Your task to perform on an android device: Set the phone to "Do not disturb". Image 0: 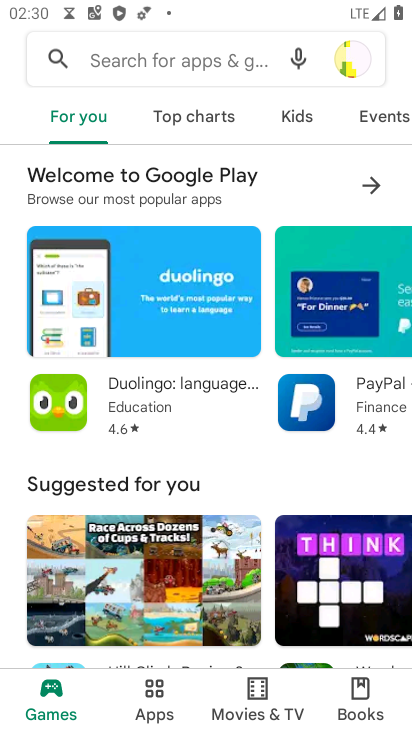
Step 0: press home button
Your task to perform on an android device: Set the phone to "Do not disturb". Image 1: 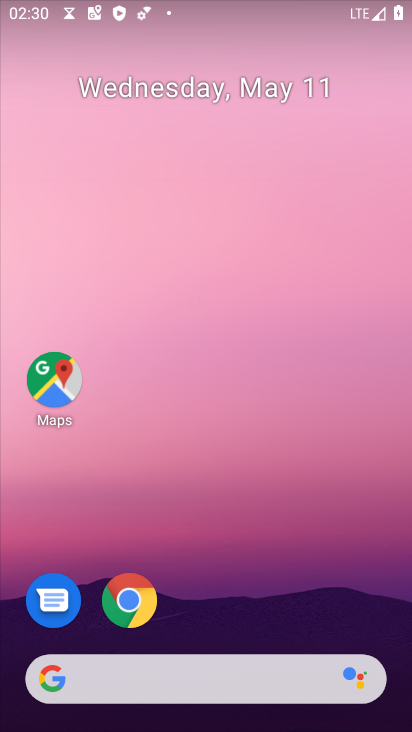
Step 1: drag from (225, 5) to (164, 569)
Your task to perform on an android device: Set the phone to "Do not disturb". Image 2: 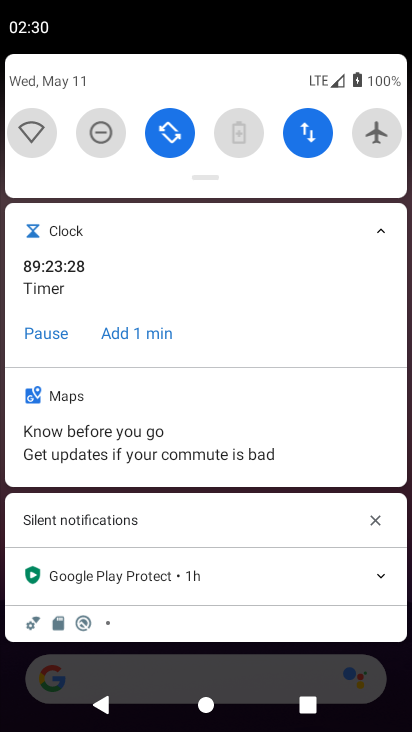
Step 2: click (94, 125)
Your task to perform on an android device: Set the phone to "Do not disturb". Image 3: 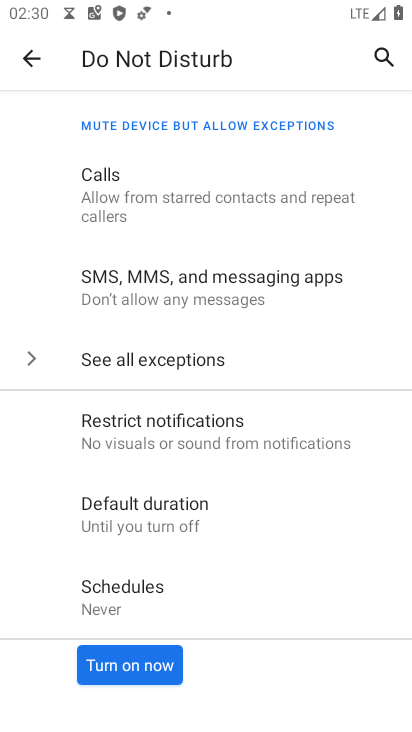
Step 3: click (119, 661)
Your task to perform on an android device: Set the phone to "Do not disturb". Image 4: 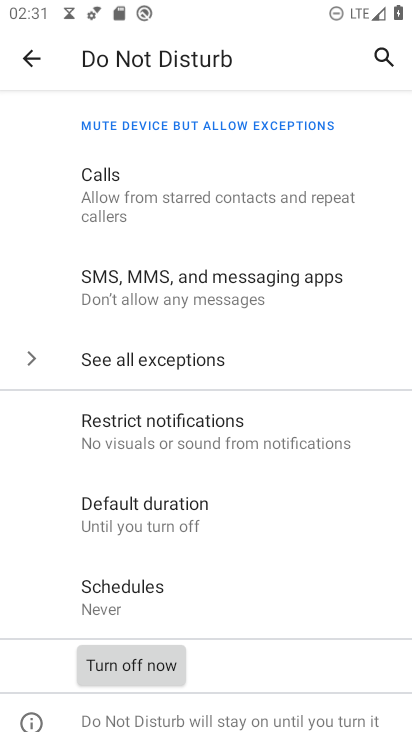
Step 4: task complete